Your task to perform on an android device: check data usage Image 0: 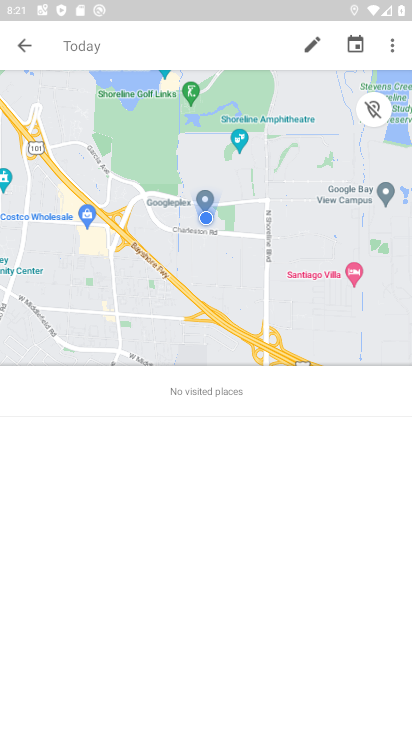
Step 0: click (23, 46)
Your task to perform on an android device: check data usage Image 1: 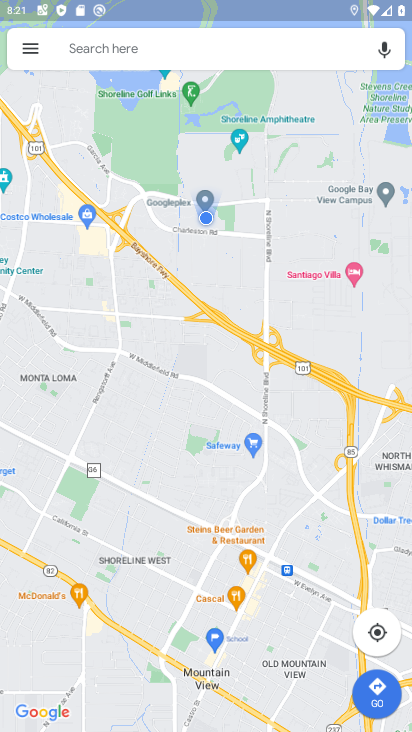
Step 1: press home button
Your task to perform on an android device: check data usage Image 2: 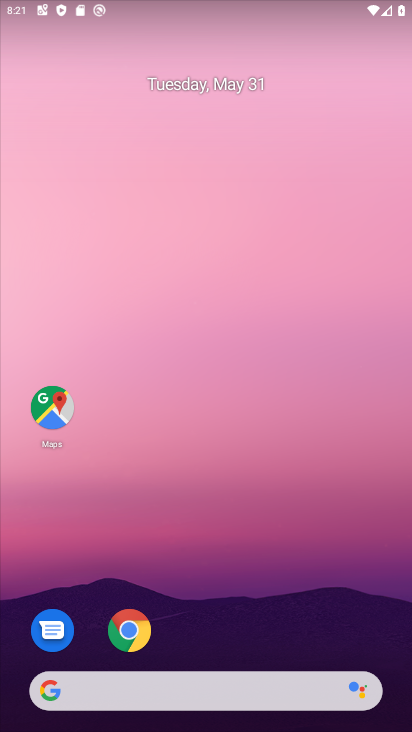
Step 2: drag from (217, 595) to (173, 180)
Your task to perform on an android device: check data usage Image 3: 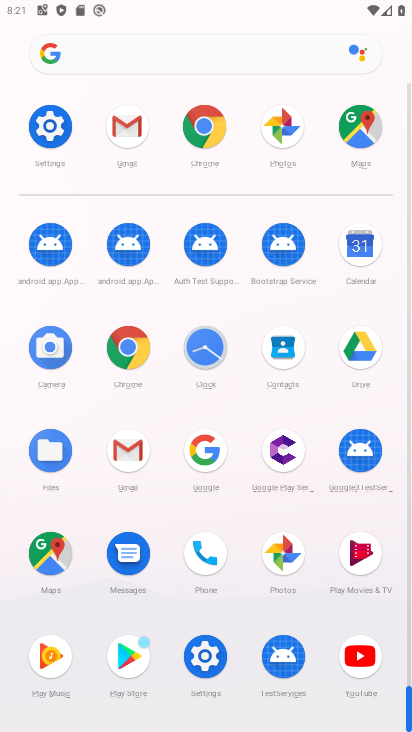
Step 3: click (209, 650)
Your task to perform on an android device: check data usage Image 4: 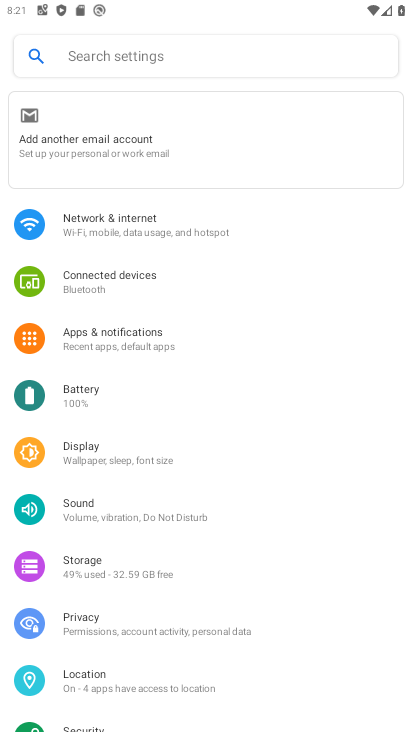
Step 4: click (164, 221)
Your task to perform on an android device: check data usage Image 5: 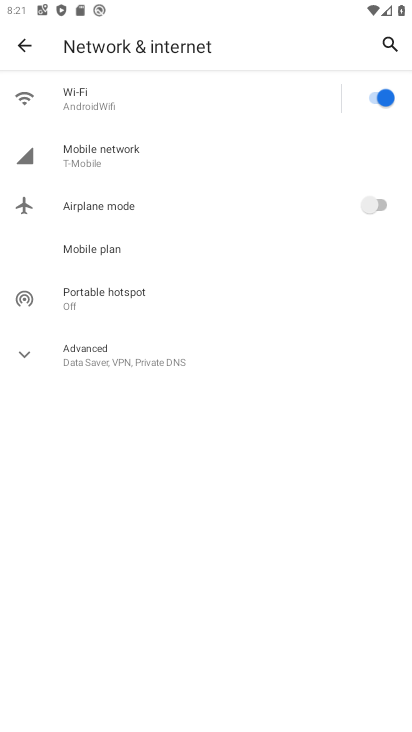
Step 5: click (139, 163)
Your task to perform on an android device: check data usage Image 6: 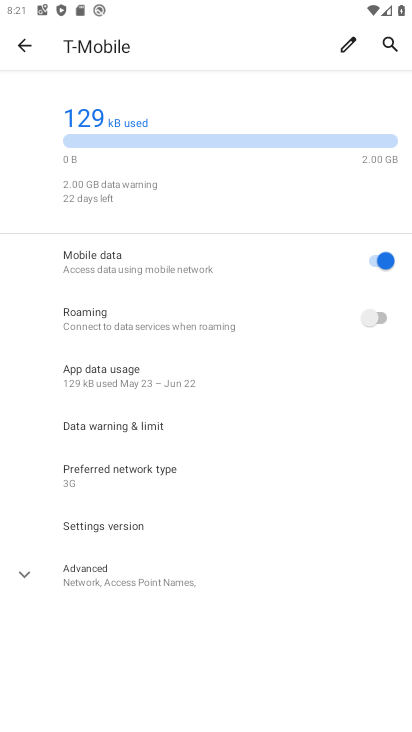
Step 6: task complete